Your task to perform on an android device: Go to privacy settings Image 0: 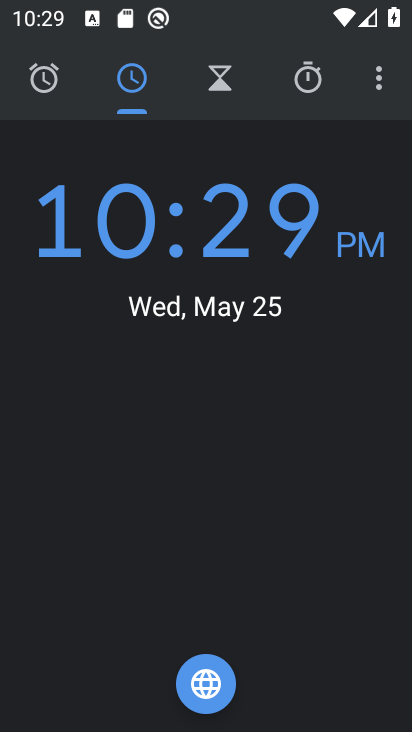
Step 0: press home button
Your task to perform on an android device: Go to privacy settings Image 1: 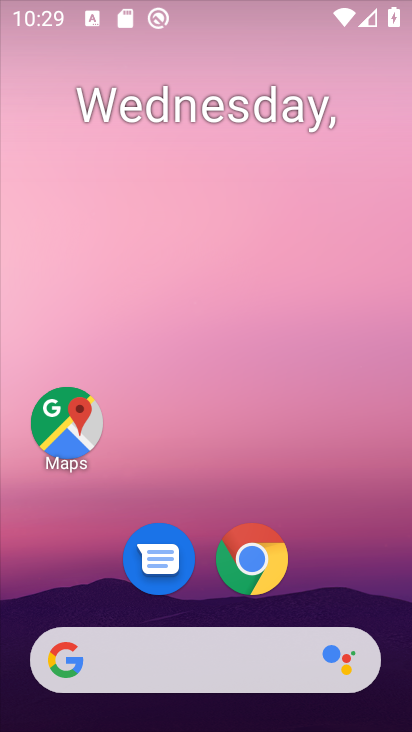
Step 1: drag from (253, 652) to (256, 146)
Your task to perform on an android device: Go to privacy settings Image 2: 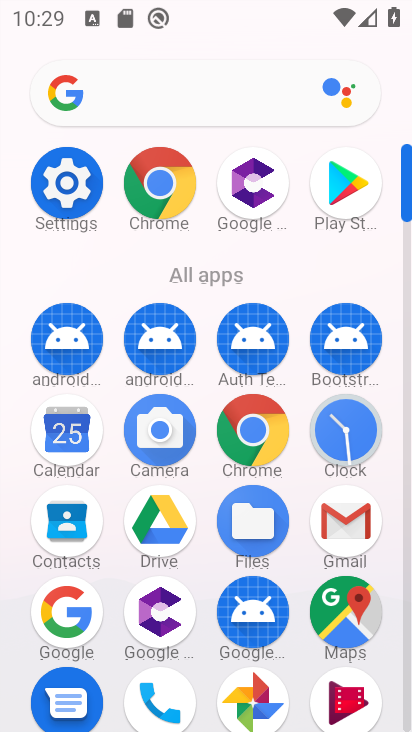
Step 2: click (84, 203)
Your task to perform on an android device: Go to privacy settings Image 3: 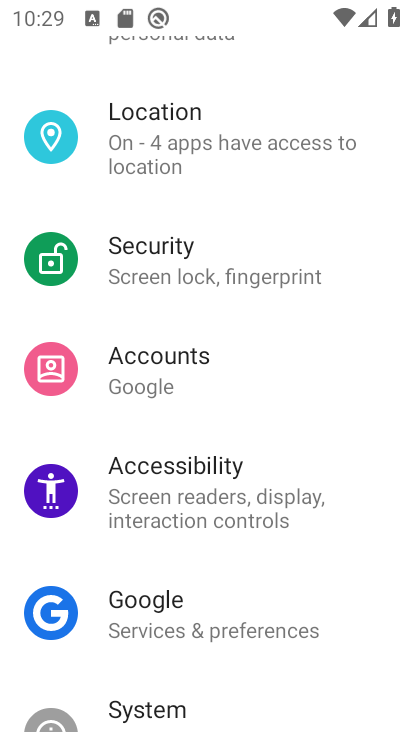
Step 3: drag from (197, 552) to (215, 276)
Your task to perform on an android device: Go to privacy settings Image 4: 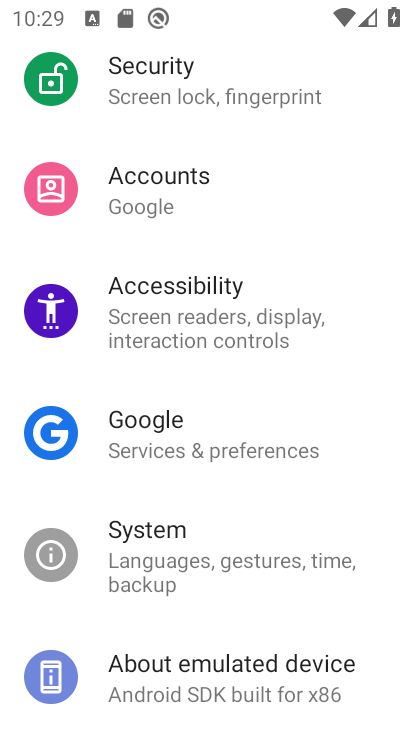
Step 4: drag from (169, 557) to (222, 186)
Your task to perform on an android device: Go to privacy settings Image 5: 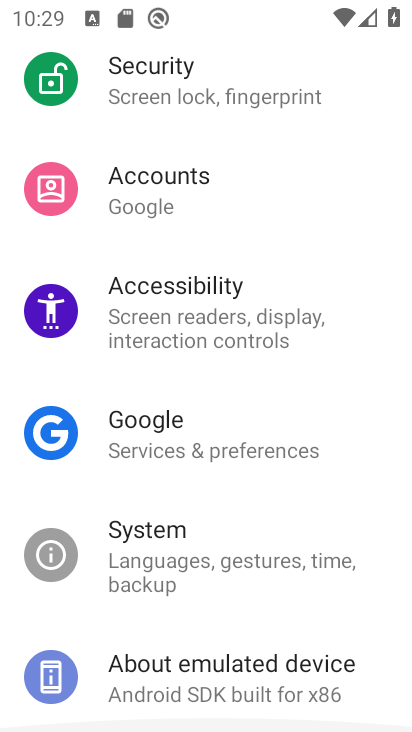
Step 5: drag from (207, 402) to (173, 727)
Your task to perform on an android device: Go to privacy settings Image 6: 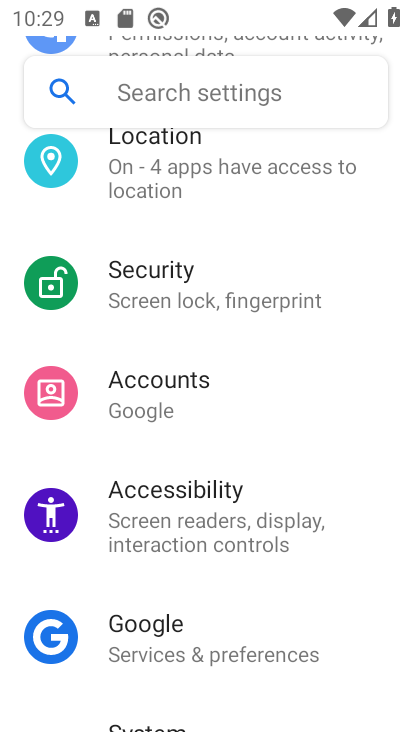
Step 6: drag from (197, 381) to (155, 724)
Your task to perform on an android device: Go to privacy settings Image 7: 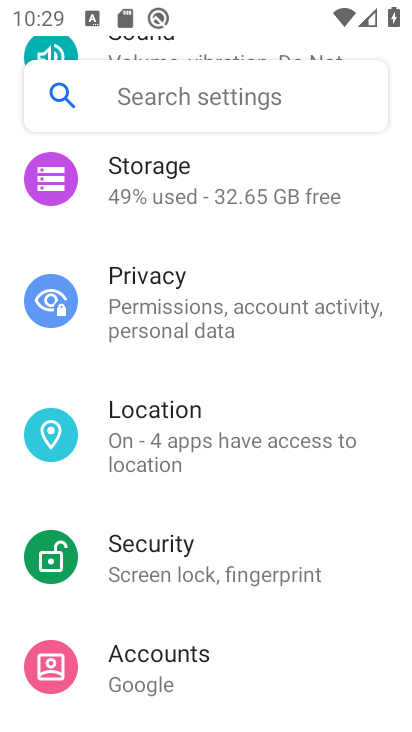
Step 7: click (204, 322)
Your task to perform on an android device: Go to privacy settings Image 8: 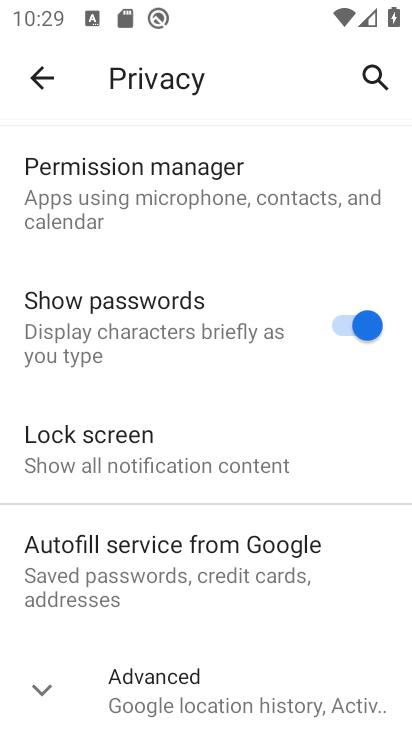
Step 8: task complete